Your task to perform on an android device: stop showing notifications on the lock screen Image 0: 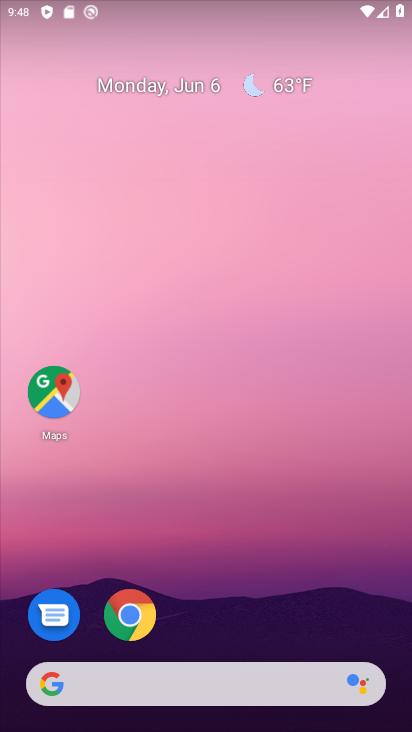
Step 0: drag from (234, 539) to (273, 64)
Your task to perform on an android device: stop showing notifications on the lock screen Image 1: 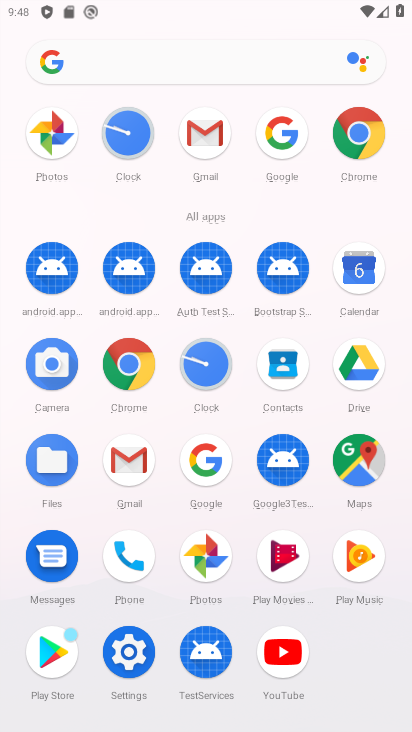
Step 1: click (139, 647)
Your task to perform on an android device: stop showing notifications on the lock screen Image 2: 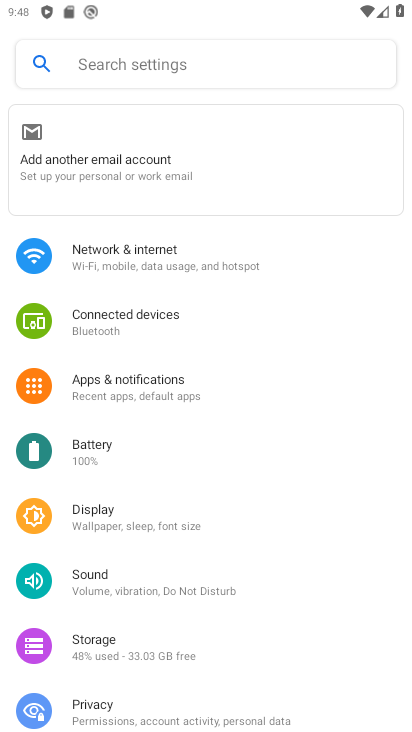
Step 2: click (173, 388)
Your task to perform on an android device: stop showing notifications on the lock screen Image 3: 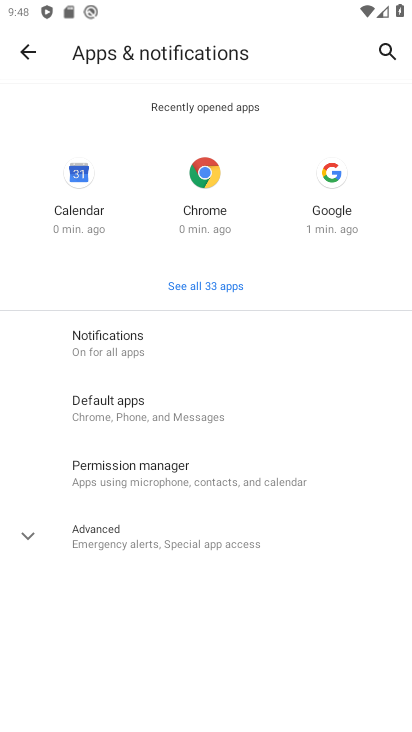
Step 3: click (128, 328)
Your task to perform on an android device: stop showing notifications on the lock screen Image 4: 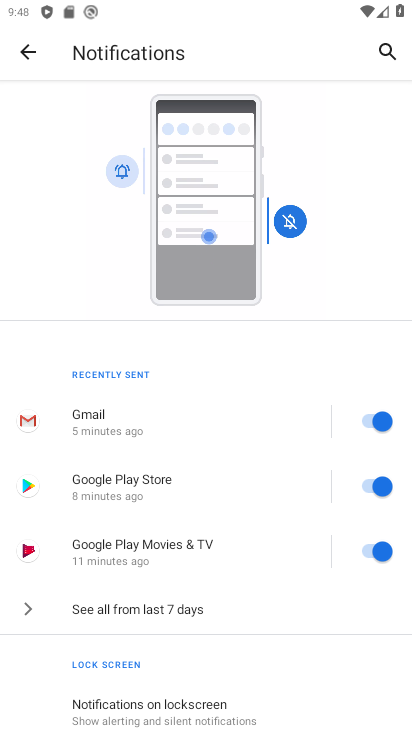
Step 4: drag from (182, 677) to (232, 234)
Your task to perform on an android device: stop showing notifications on the lock screen Image 5: 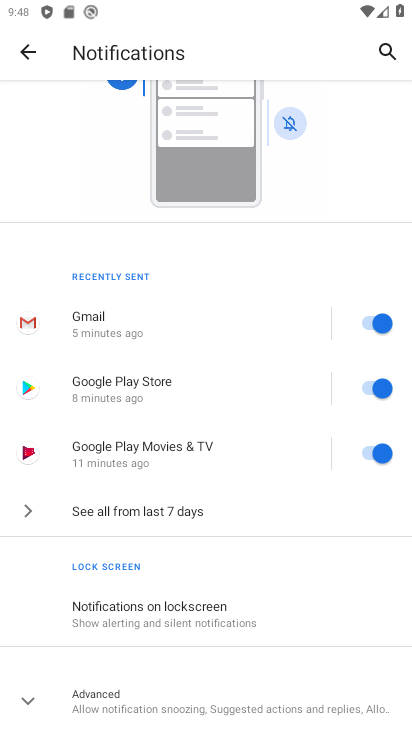
Step 5: click (148, 602)
Your task to perform on an android device: stop showing notifications on the lock screen Image 6: 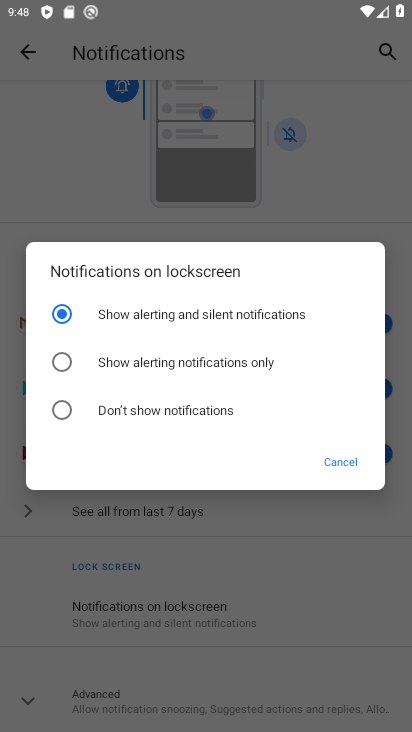
Step 6: click (83, 411)
Your task to perform on an android device: stop showing notifications on the lock screen Image 7: 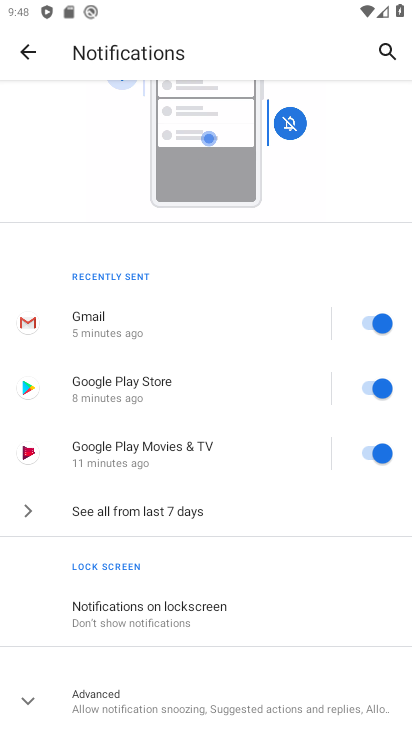
Step 7: task complete